Your task to perform on an android device: star an email in the gmail app Image 0: 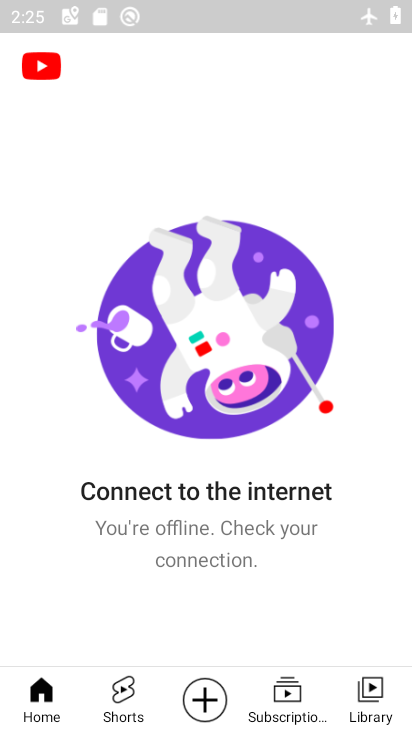
Step 0: drag from (218, 609) to (103, 120)
Your task to perform on an android device: star an email in the gmail app Image 1: 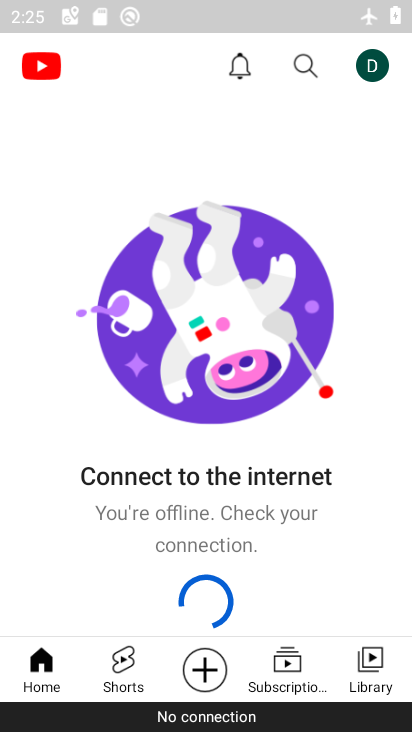
Step 1: press back button
Your task to perform on an android device: star an email in the gmail app Image 2: 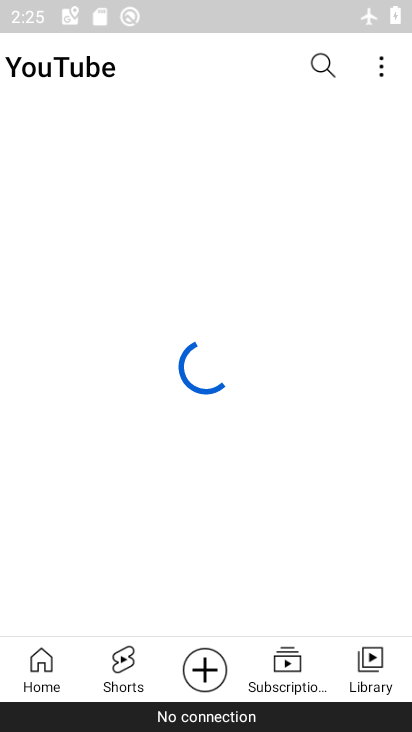
Step 2: press back button
Your task to perform on an android device: star an email in the gmail app Image 3: 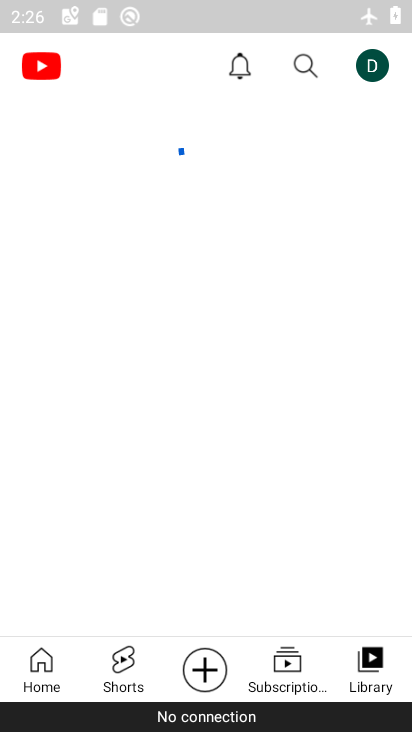
Step 3: press home button
Your task to perform on an android device: star an email in the gmail app Image 4: 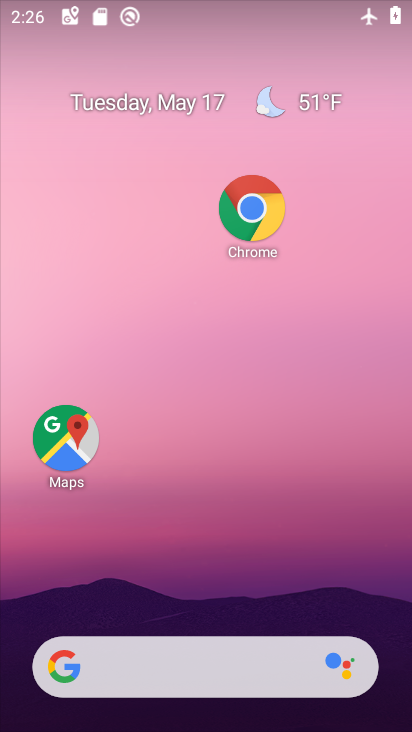
Step 4: drag from (215, 623) to (77, 30)
Your task to perform on an android device: star an email in the gmail app Image 5: 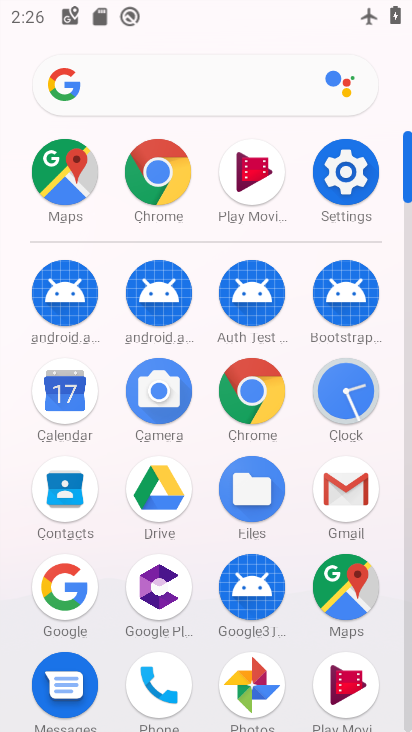
Step 5: click (332, 517)
Your task to perform on an android device: star an email in the gmail app Image 6: 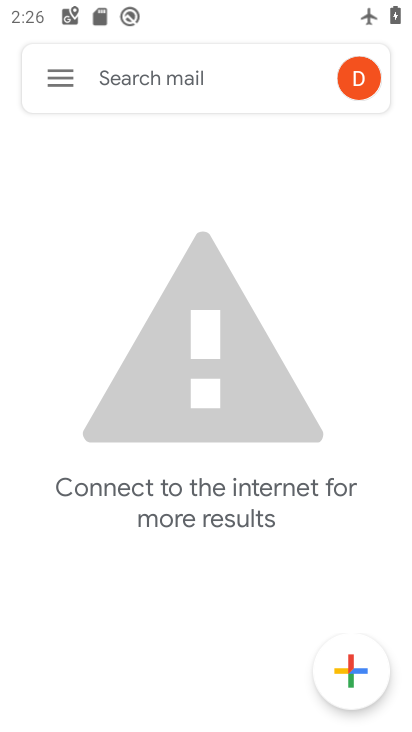
Step 6: click (48, 76)
Your task to perform on an android device: star an email in the gmail app Image 7: 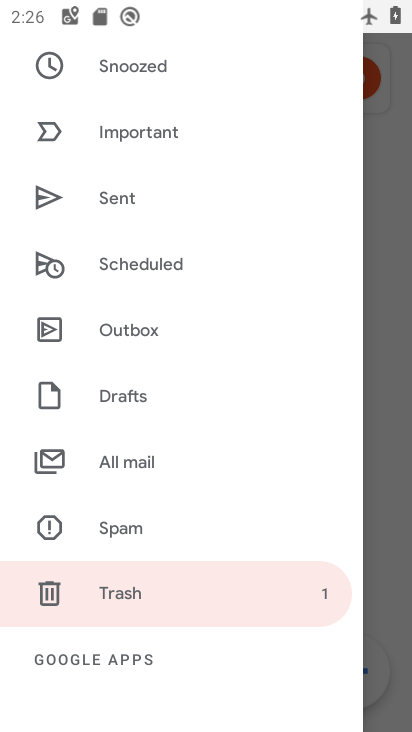
Step 7: task complete